Your task to perform on an android device: Toggle the flashlight Image 0: 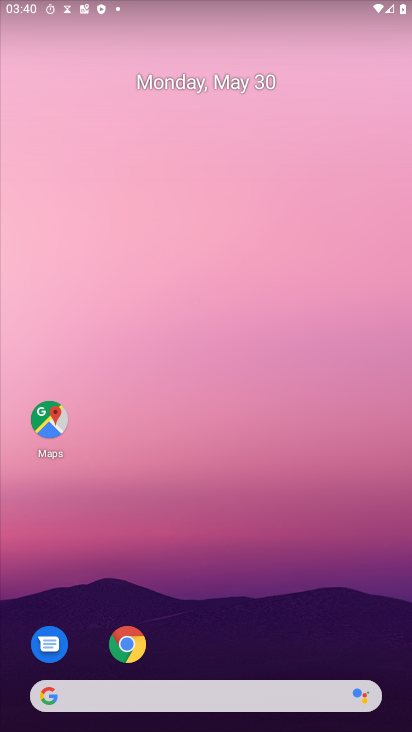
Step 0: press home button
Your task to perform on an android device: Toggle the flashlight Image 1: 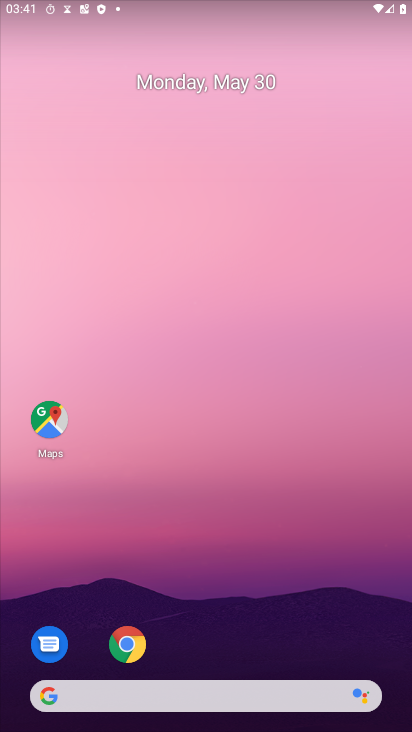
Step 1: task complete